Your task to perform on an android device: see creations saved in the google photos Image 0: 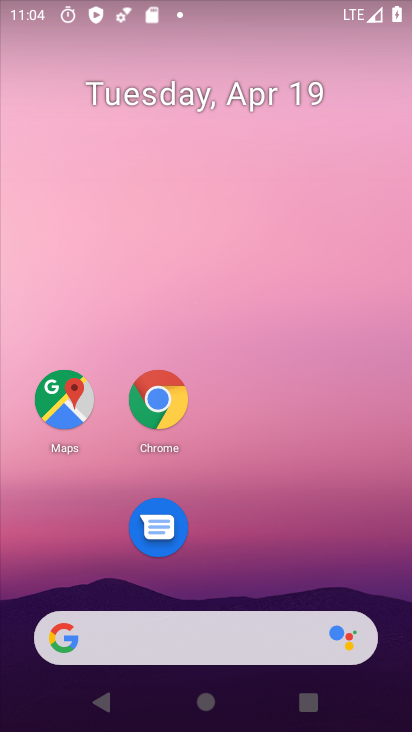
Step 0: drag from (288, 671) to (290, 355)
Your task to perform on an android device: see creations saved in the google photos Image 1: 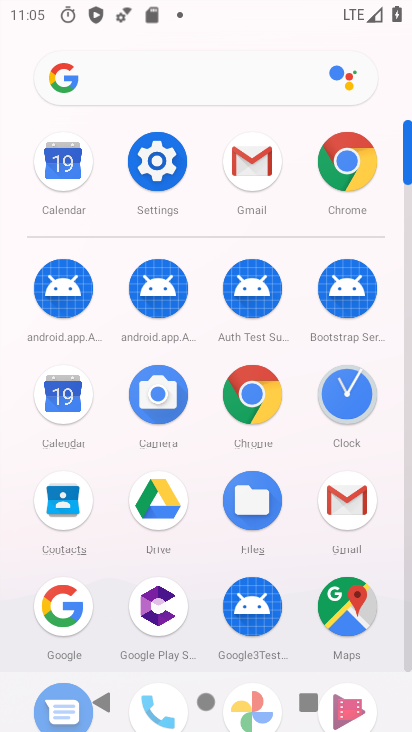
Step 1: drag from (286, 546) to (286, 441)
Your task to perform on an android device: see creations saved in the google photos Image 2: 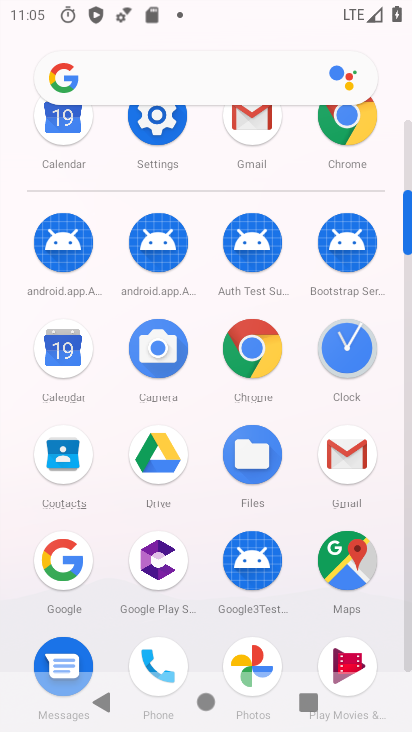
Step 2: click (241, 644)
Your task to perform on an android device: see creations saved in the google photos Image 3: 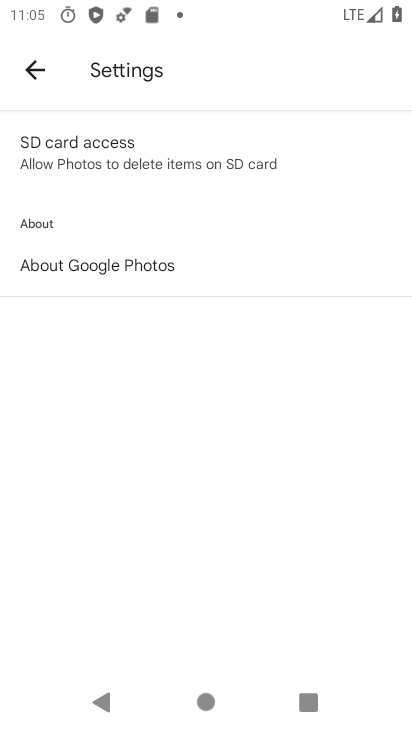
Step 3: click (31, 71)
Your task to perform on an android device: see creations saved in the google photos Image 4: 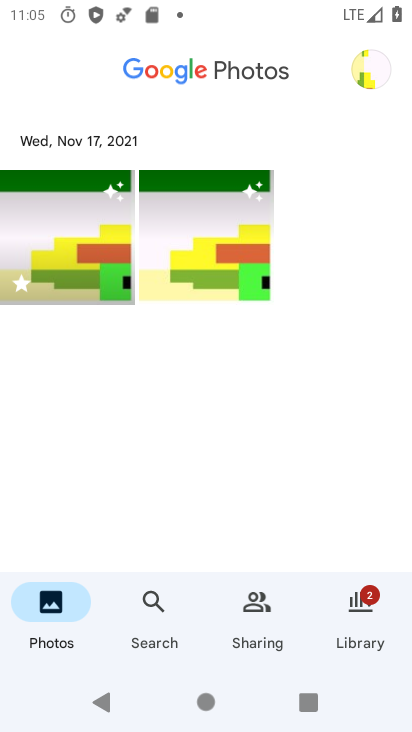
Step 4: click (230, 280)
Your task to perform on an android device: see creations saved in the google photos Image 5: 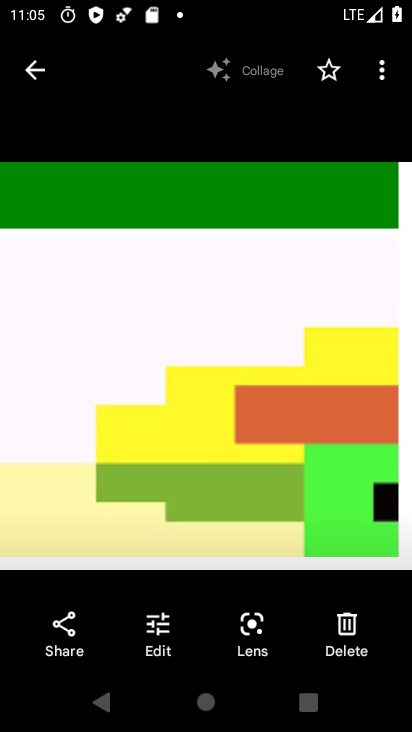
Step 5: click (382, 74)
Your task to perform on an android device: see creations saved in the google photos Image 6: 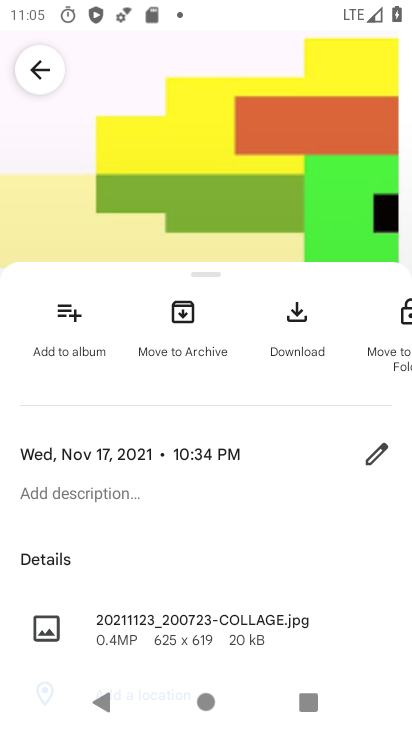
Step 6: task complete